Your task to perform on an android device: add a label to a message in the gmail app Image 0: 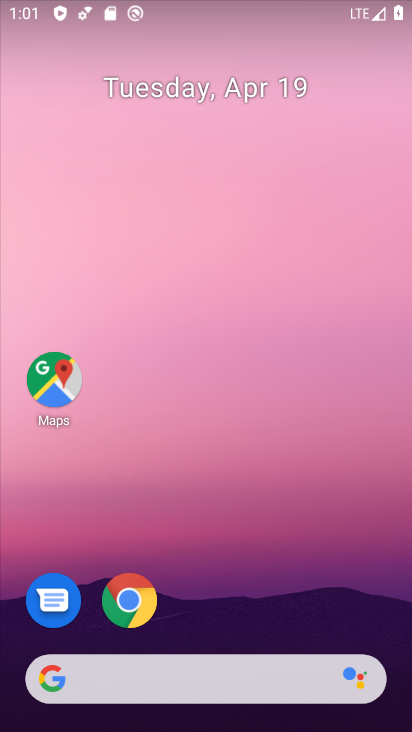
Step 0: drag from (223, 649) to (149, 62)
Your task to perform on an android device: add a label to a message in the gmail app Image 1: 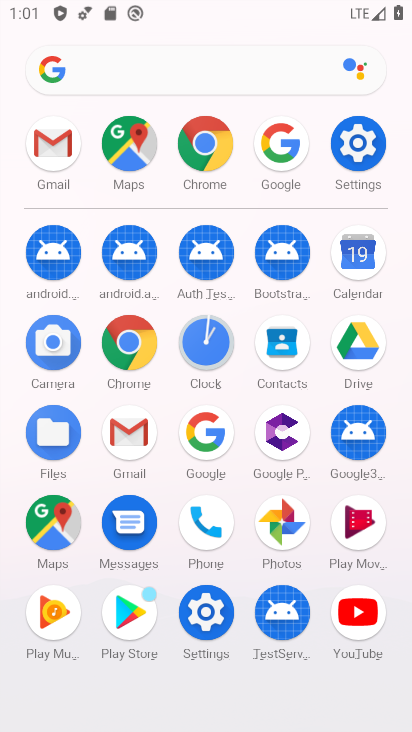
Step 1: click (134, 442)
Your task to perform on an android device: add a label to a message in the gmail app Image 2: 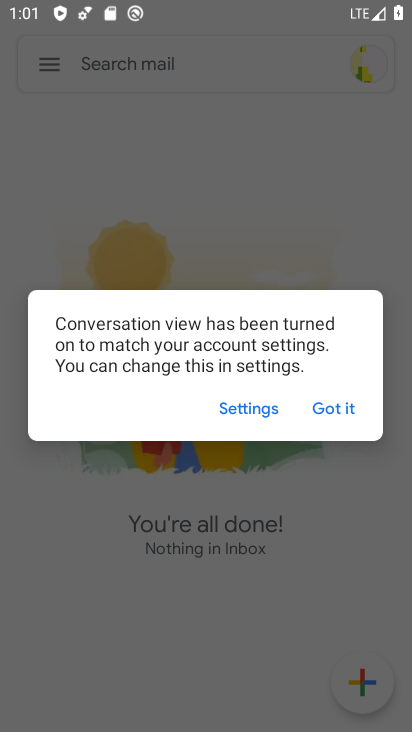
Step 2: click (327, 408)
Your task to perform on an android device: add a label to a message in the gmail app Image 3: 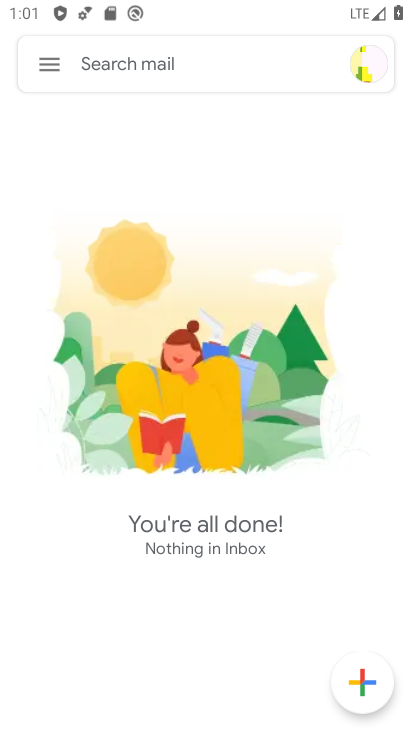
Step 3: task complete